Your task to perform on an android device: check google app version Image 0: 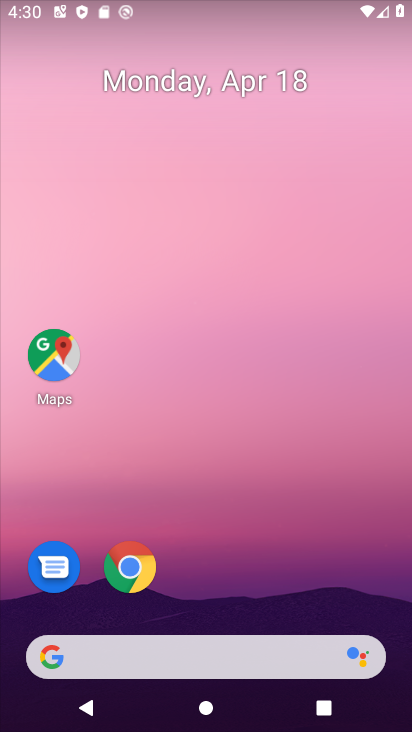
Step 0: drag from (233, 631) to (231, 262)
Your task to perform on an android device: check google app version Image 1: 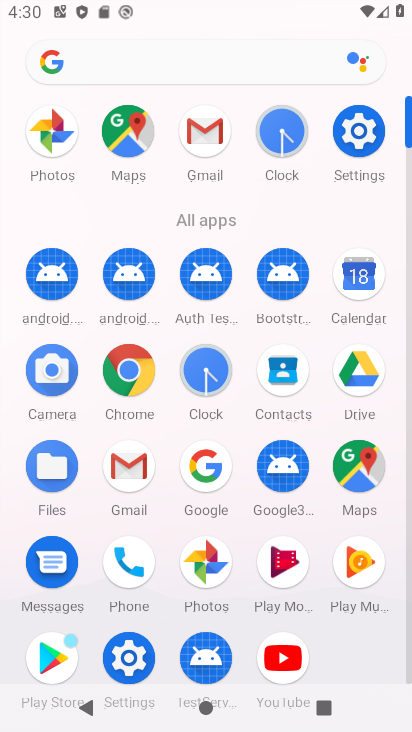
Step 1: click (138, 359)
Your task to perform on an android device: check google app version Image 2: 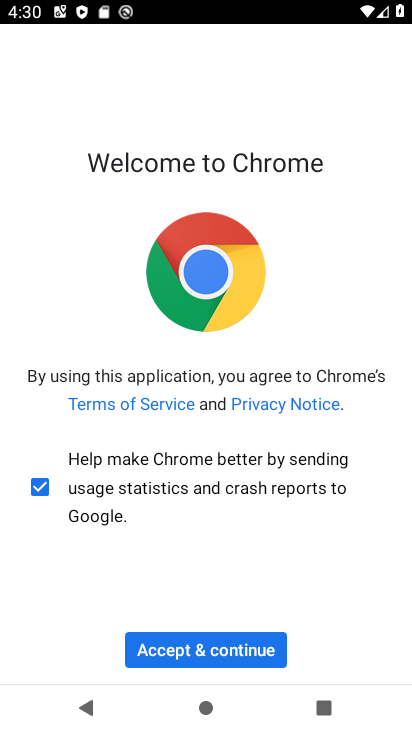
Step 2: click (171, 645)
Your task to perform on an android device: check google app version Image 3: 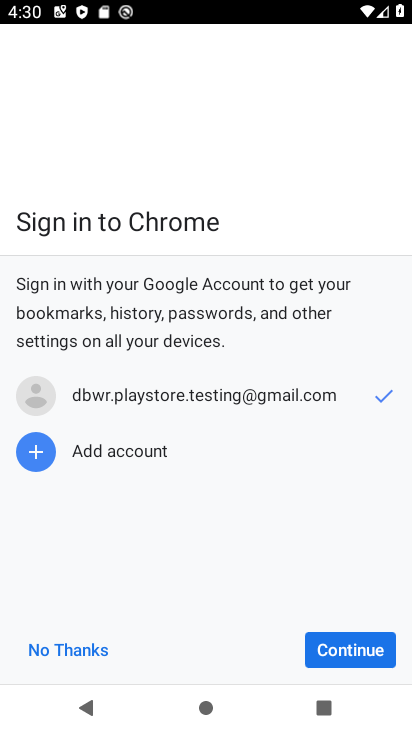
Step 3: click (52, 656)
Your task to perform on an android device: check google app version Image 4: 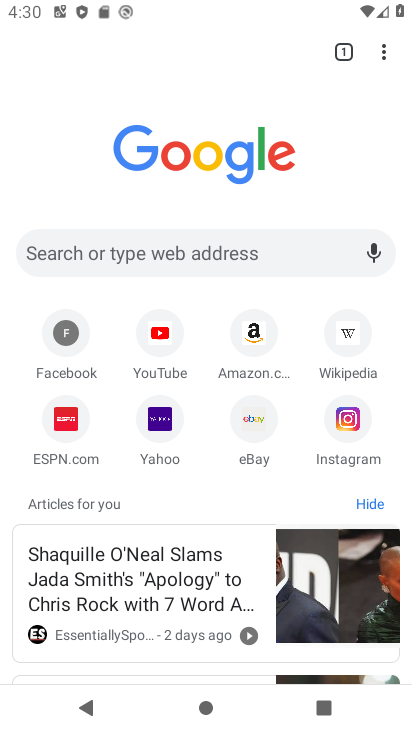
Step 4: click (383, 44)
Your task to perform on an android device: check google app version Image 5: 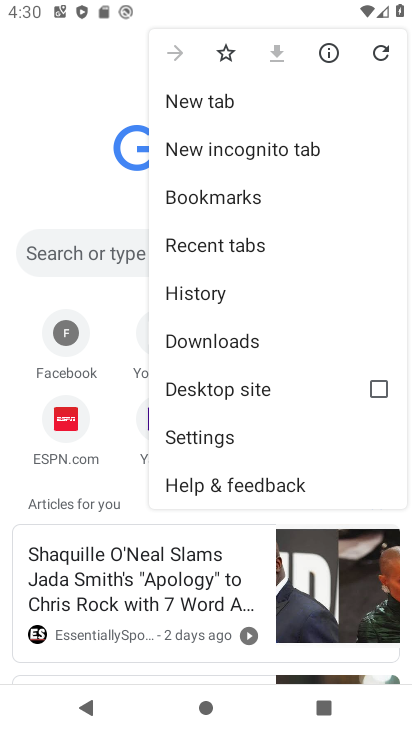
Step 5: click (185, 443)
Your task to perform on an android device: check google app version Image 6: 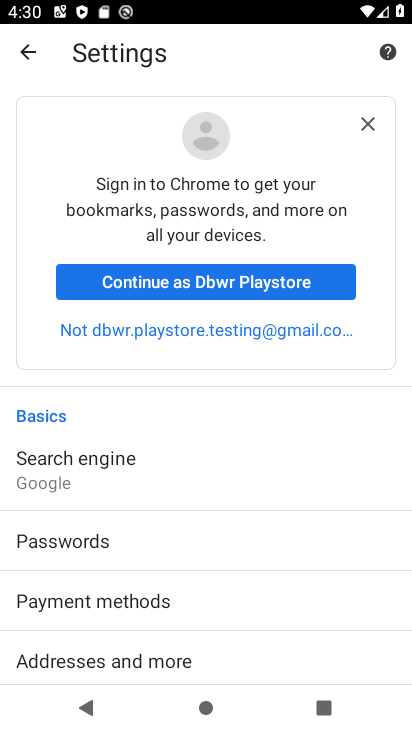
Step 6: drag from (166, 618) to (83, 217)
Your task to perform on an android device: check google app version Image 7: 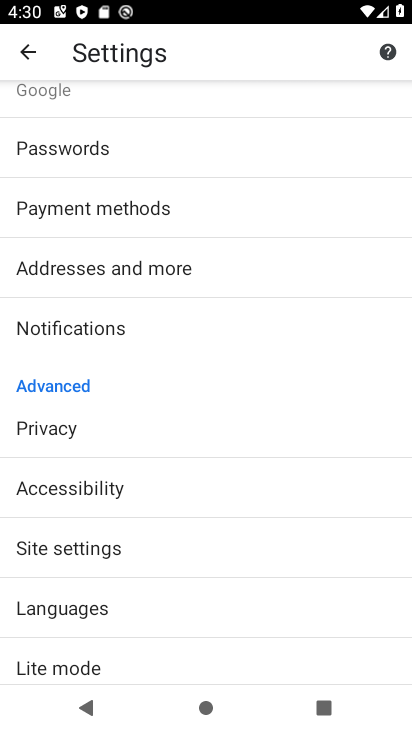
Step 7: drag from (100, 575) to (0, 17)
Your task to perform on an android device: check google app version Image 8: 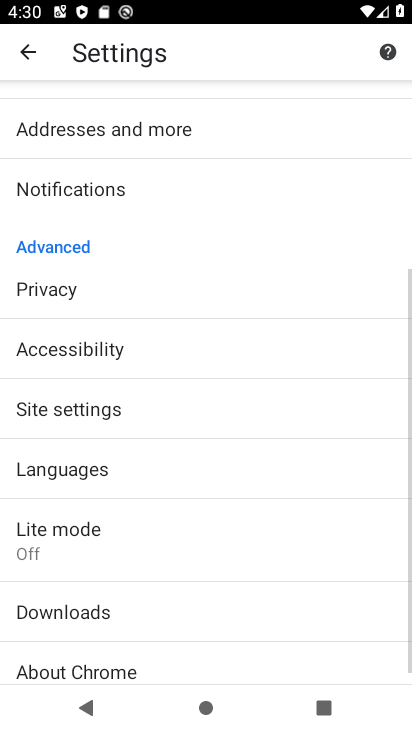
Step 8: click (26, 645)
Your task to perform on an android device: check google app version Image 9: 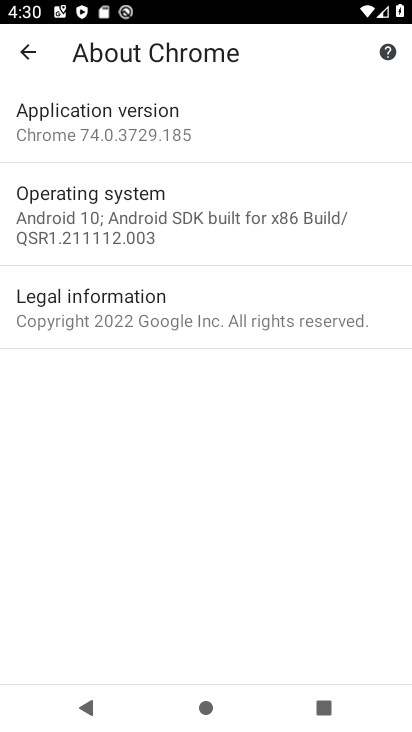
Step 9: task complete